Your task to perform on an android device: turn off javascript in the chrome app Image 0: 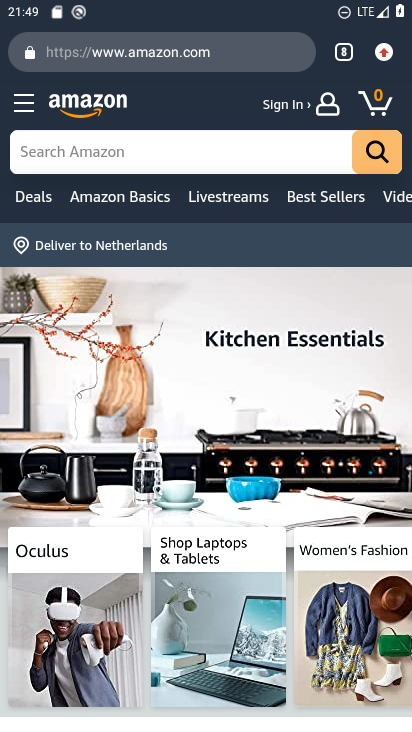
Step 0: click (390, 50)
Your task to perform on an android device: turn off javascript in the chrome app Image 1: 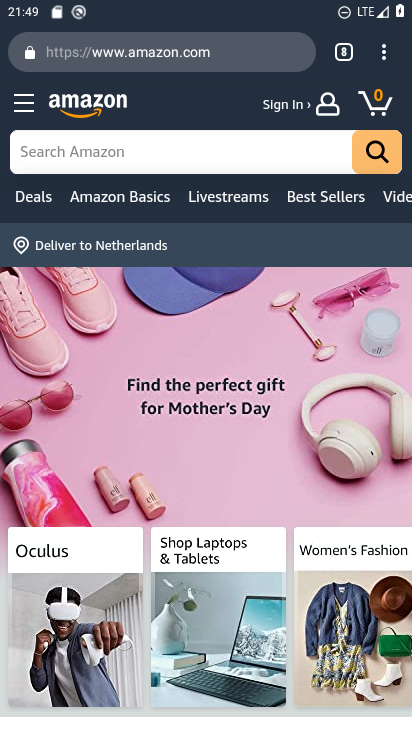
Step 1: click (390, 50)
Your task to perform on an android device: turn off javascript in the chrome app Image 2: 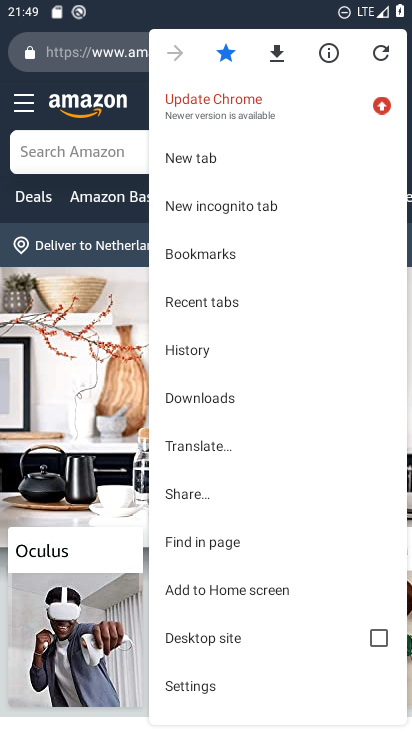
Step 2: click (190, 696)
Your task to perform on an android device: turn off javascript in the chrome app Image 3: 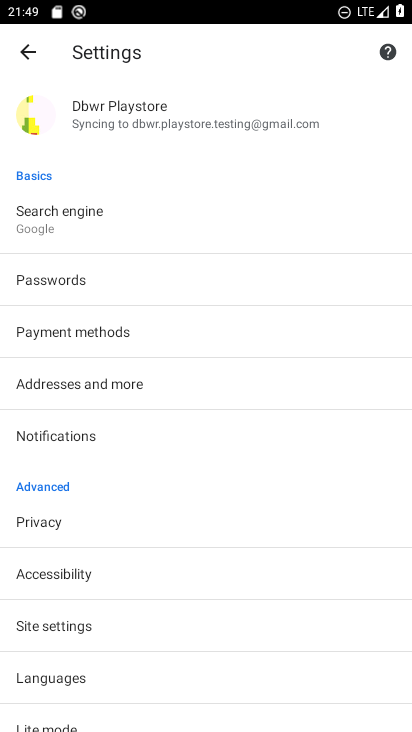
Step 3: drag from (190, 696) to (237, 129)
Your task to perform on an android device: turn off javascript in the chrome app Image 4: 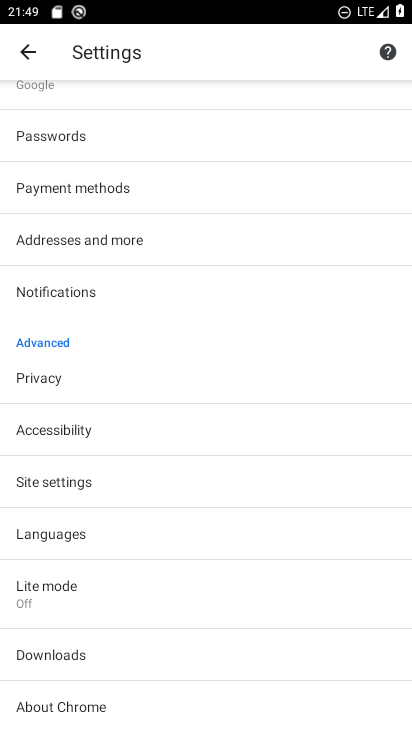
Step 4: click (123, 495)
Your task to perform on an android device: turn off javascript in the chrome app Image 5: 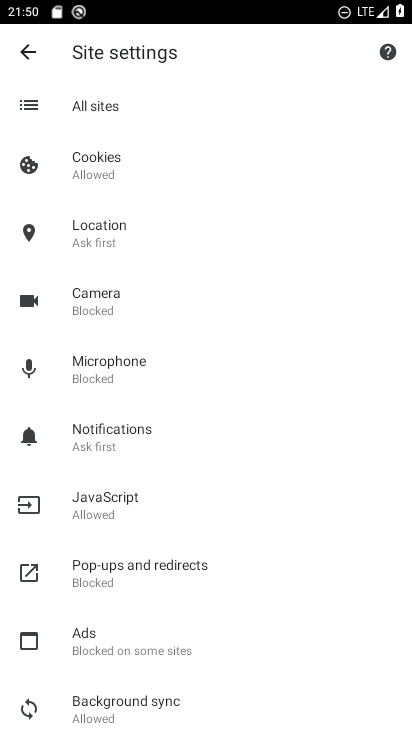
Step 5: click (129, 496)
Your task to perform on an android device: turn off javascript in the chrome app Image 6: 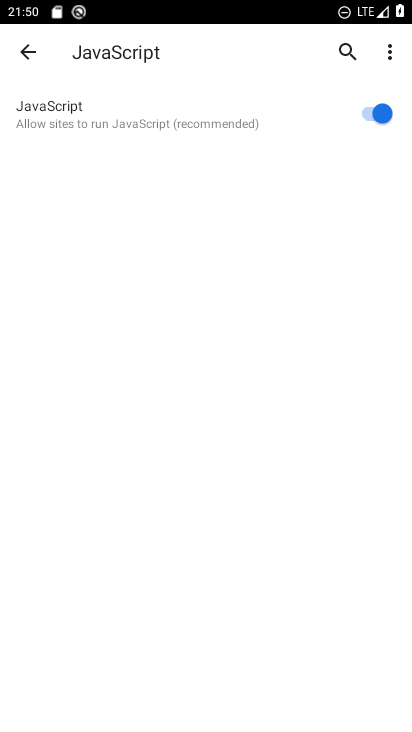
Step 6: click (367, 119)
Your task to perform on an android device: turn off javascript in the chrome app Image 7: 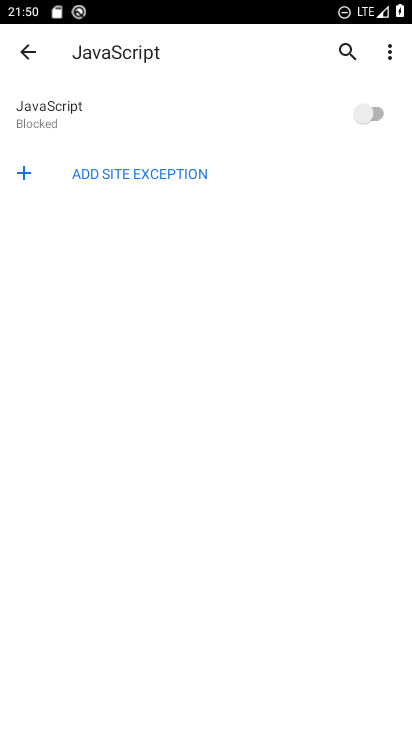
Step 7: task complete